Your task to perform on an android device: Open the web browser Image 0: 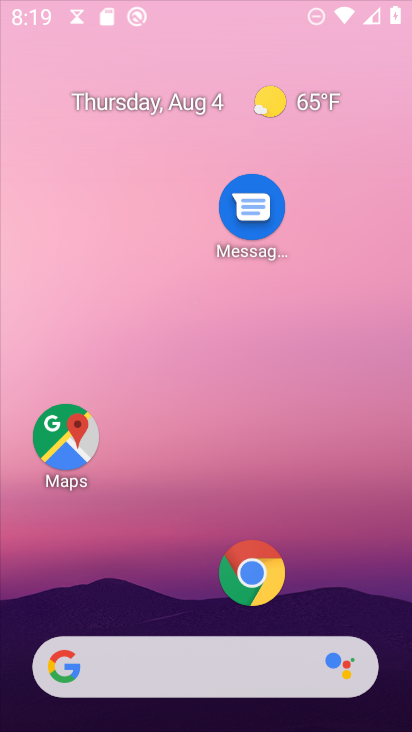
Step 0: press home button
Your task to perform on an android device: Open the web browser Image 1: 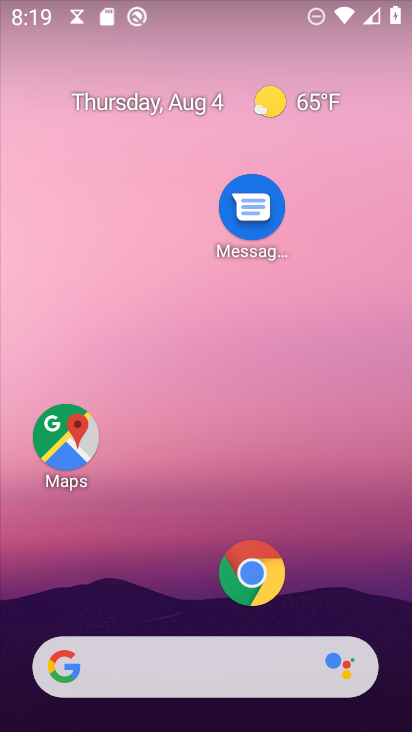
Step 1: click (66, 670)
Your task to perform on an android device: Open the web browser Image 2: 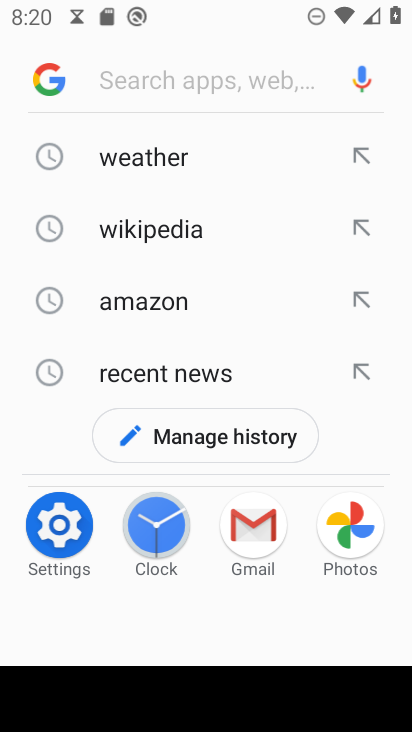
Step 2: task complete